Your task to perform on an android device: see tabs open on other devices in the chrome app Image 0: 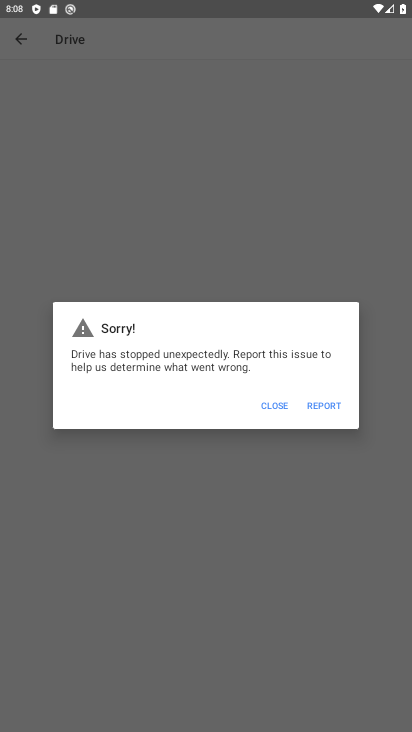
Step 0: press back button
Your task to perform on an android device: see tabs open on other devices in the chrome app Image 1: 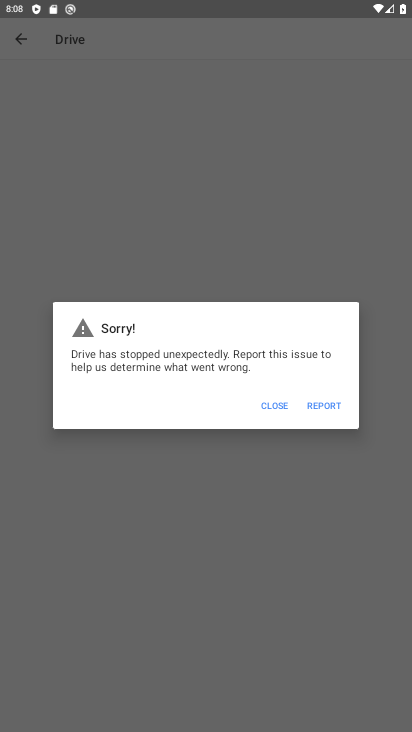
Step 1: press home button
Your task to perform on an android device: see tabs open on other devices in the chrome app Image 2: 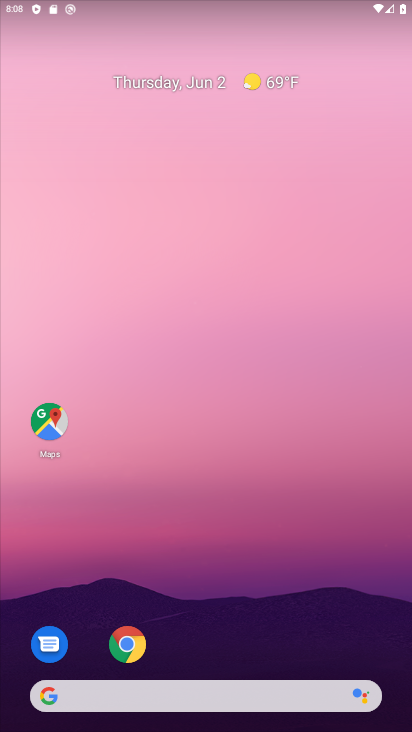
Step 2: drag from (263, 595) to (163, 27)
Your task to perform on an android device: see tabs open on other devices in the chrome app Image 3: 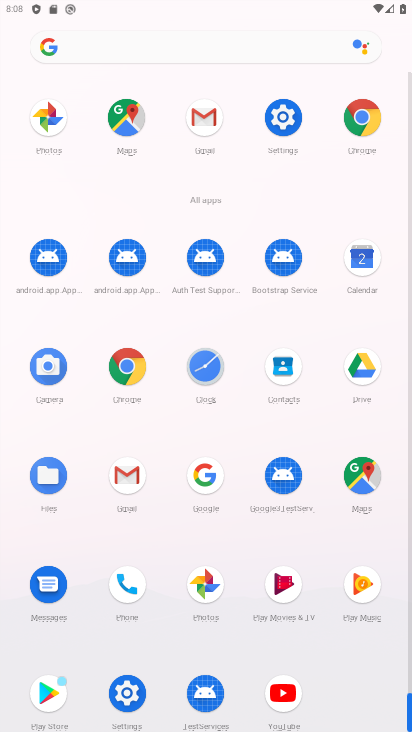
Step 3: drag from (4, 583) to (21, 234)
Your task to perform on an android device: see tabs open on other devices in the chrome app Image 4: 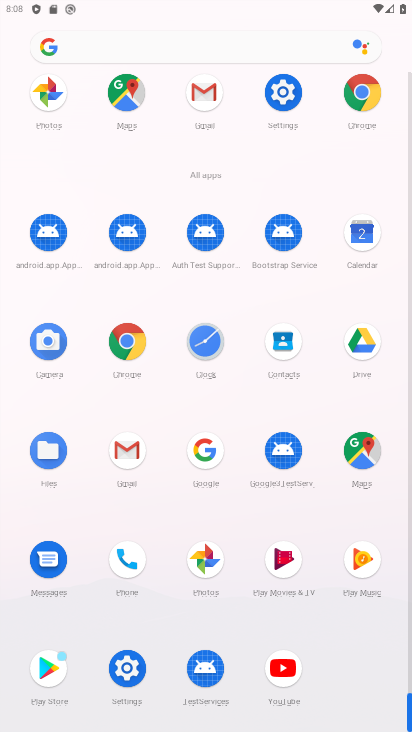
Step 4: click (125, 340)
Your task to perform on an android device: see tabs open on other devices in the chrome app Image 5: 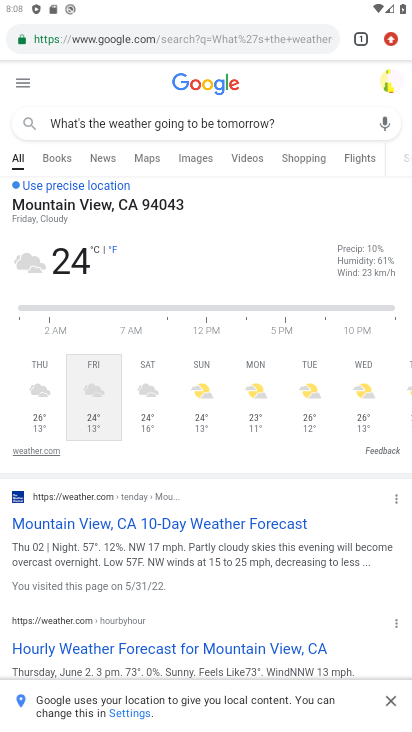
Step 5: task complete